Your task to perform on an android device: What's on my calendar tomorrow? Image 0: 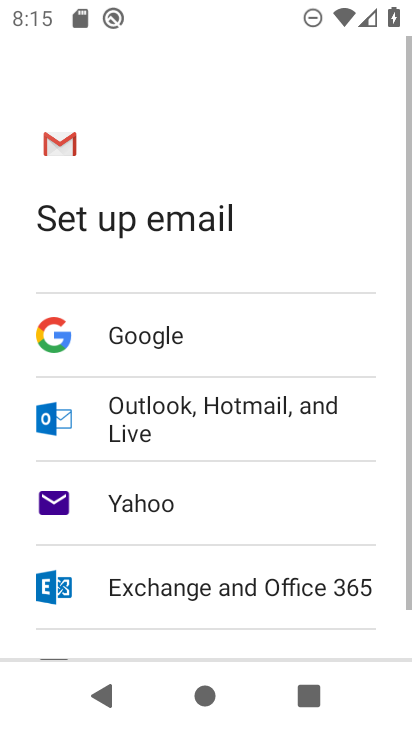
Step 0: press home button
Your task to perform on an android device: What's on my calendar tomorrow? Image 1: 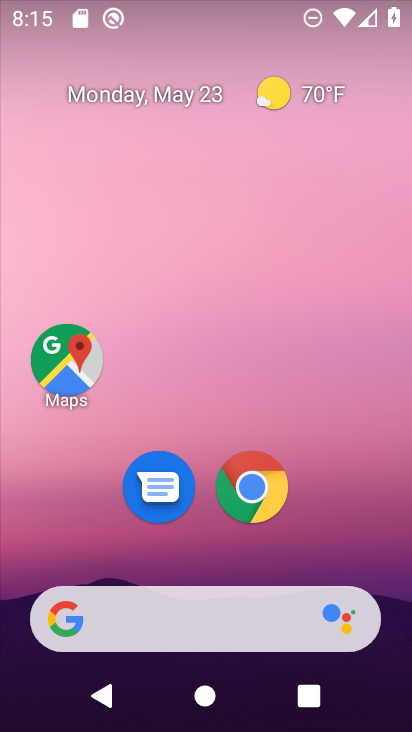
Step 1: drag from (186, 579) to (327, 13)
Your task to perform on an android device: What's on my calendar tomorrow? Image 2: 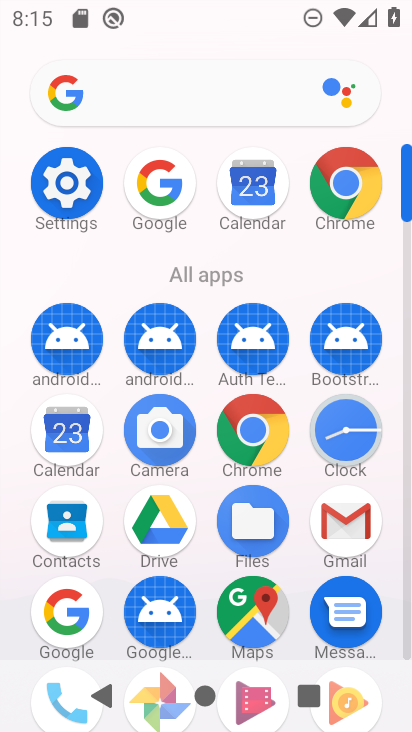
Step 2: click (255, 186)
Your task to perform on an android device: What's on my calendar tomorrow? Image 3: 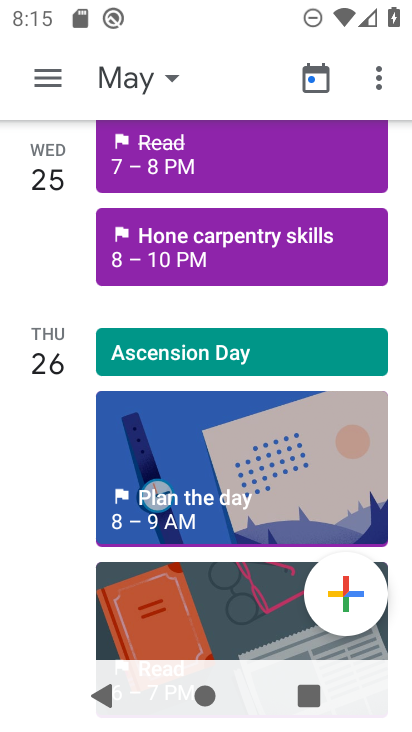
Step 3: click (145, 84)
Your task to perform on an android device: What's on my calendar tomorrow? Image 4: 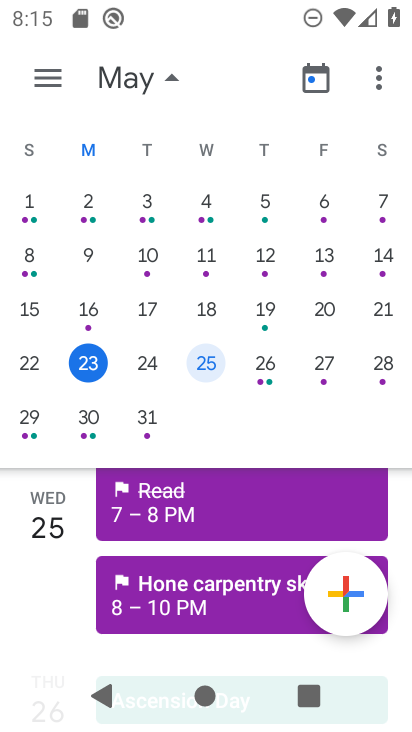
Step 4: click (205, 359)
Your task to perform on an android device: What's on my calendar tomorrow? Image 5: 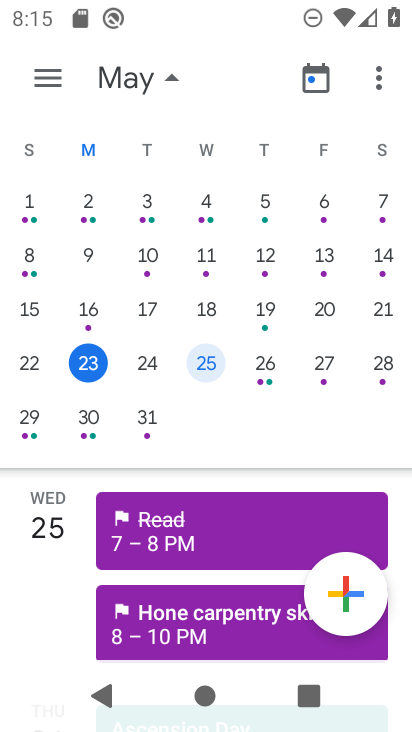
Step 5: click (151, 363)
Your task to perform on an android device: What's on my calendar tomorrow? Image 6: 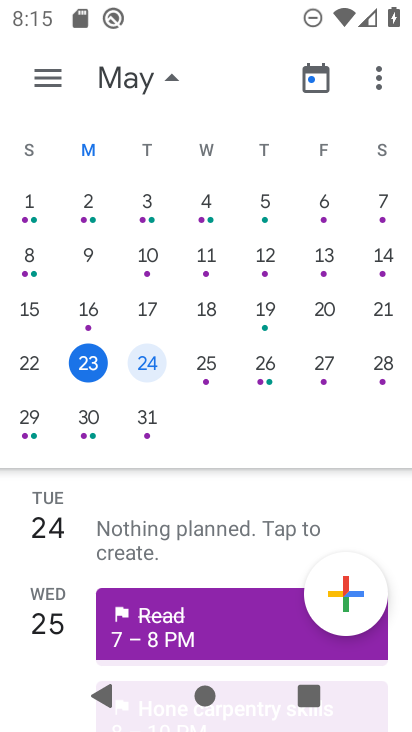
Step 6: task complete